Your task to perform on an android device: Open Reddit.com Image 0: 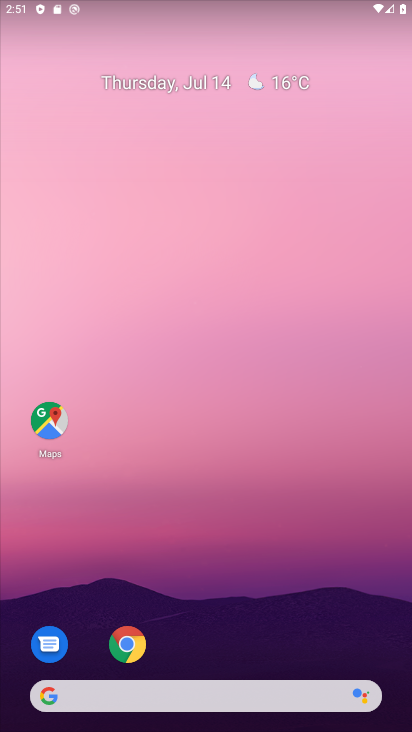
Step 0: click (122, 644)
Your task to perform on an android device: Open Reddit.com Image 1: 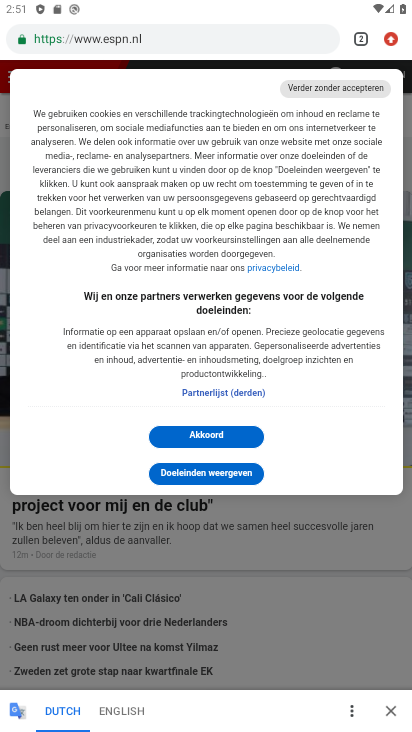
Step 1: click (356, 38)
Your task to perform on an android device: Open Reddit.com Image 2: 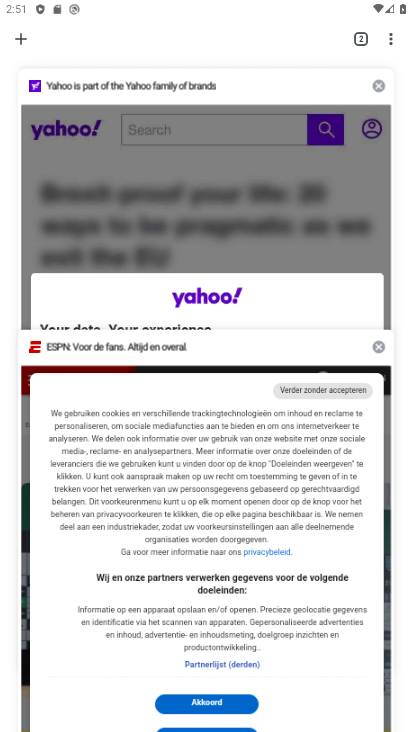
Step 2: click (21, 43)
Your task to perform on an android device: Open Reddit.com Image 3: 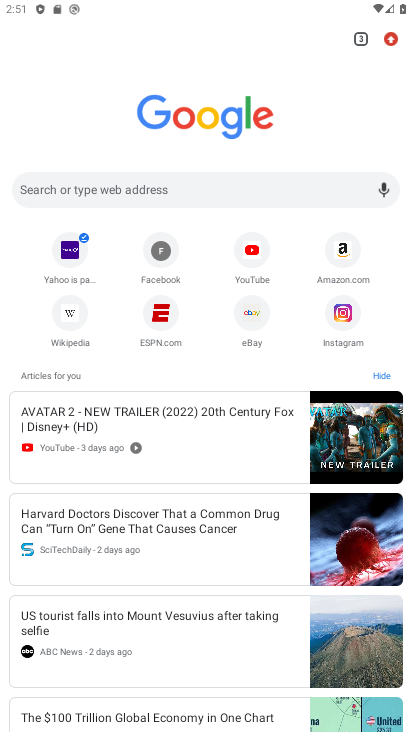
Step 3: click (118, 180)
Your task to perform on an android device: Open Reddit.com Image 4: 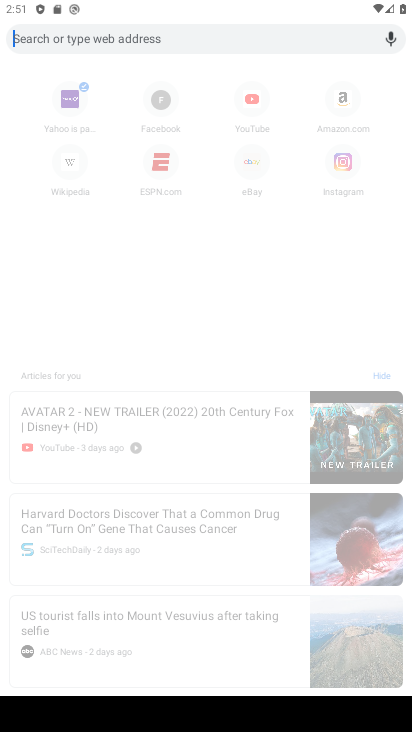
Step 4: type "Reddit.com"
Your task to perform on an android device: Open Reddit.com Image 5: 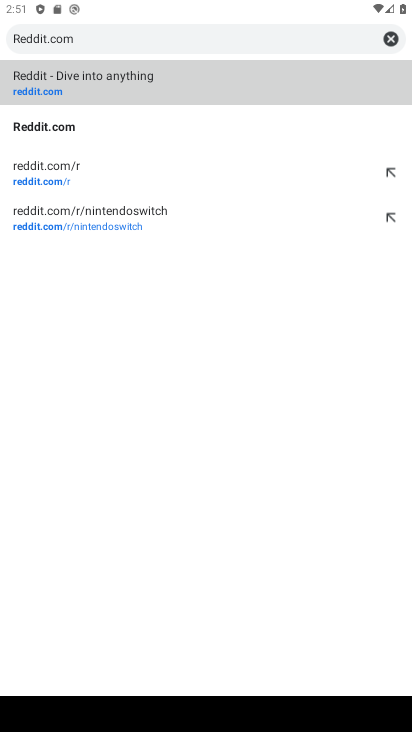
Step 5: click (100, 128)
Your task to perform on an android device: Open Reddit.com Image 6: 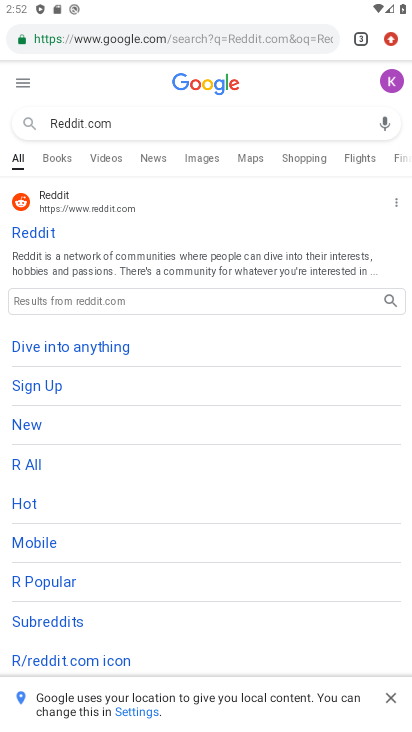
Step 6: click (50, 229)
Your task to perform on an android device: Open Reddit.com Image 7: 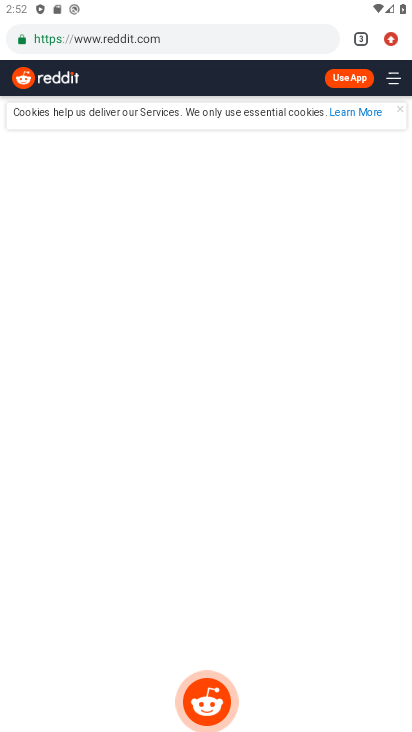
Step 7: task complete